Your task to perform on an android device: Open calendar and show me the second week of next month Image 0: 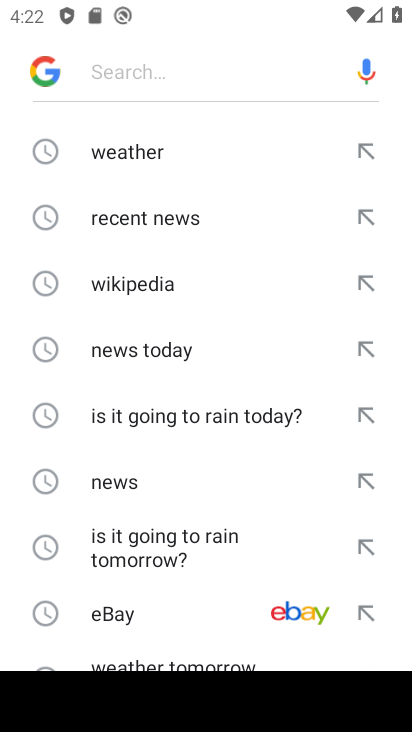
Step 0: press home button
Your task to perform on an android device: Open calendar and show me the second week of next month Image 1: 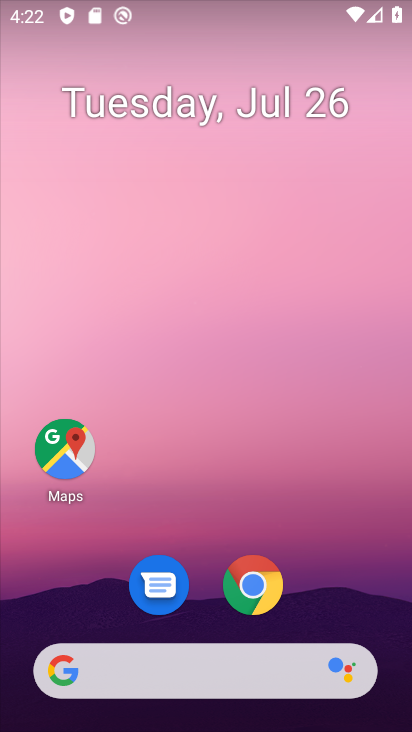
Step 1: drag from (306, 569) to (284, 83)
Your task to perform on an android device: Open calendar and show me the second week of next month Image 2: 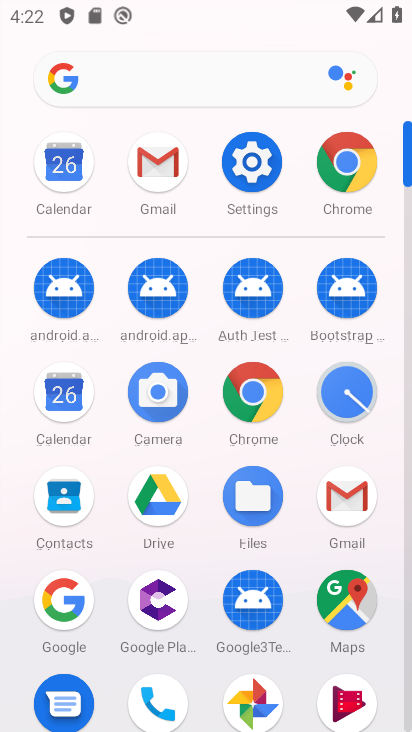
Step 2: click (76, 181)
Your task to perform on an android device: Open calendar and show me the second week of next month Image 3: 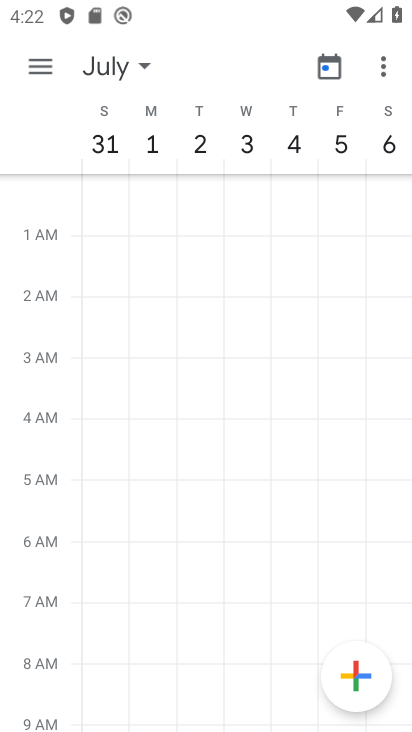
Step 3: task complete